Your task to perform on an android device: Open ESPN.com Image 0: 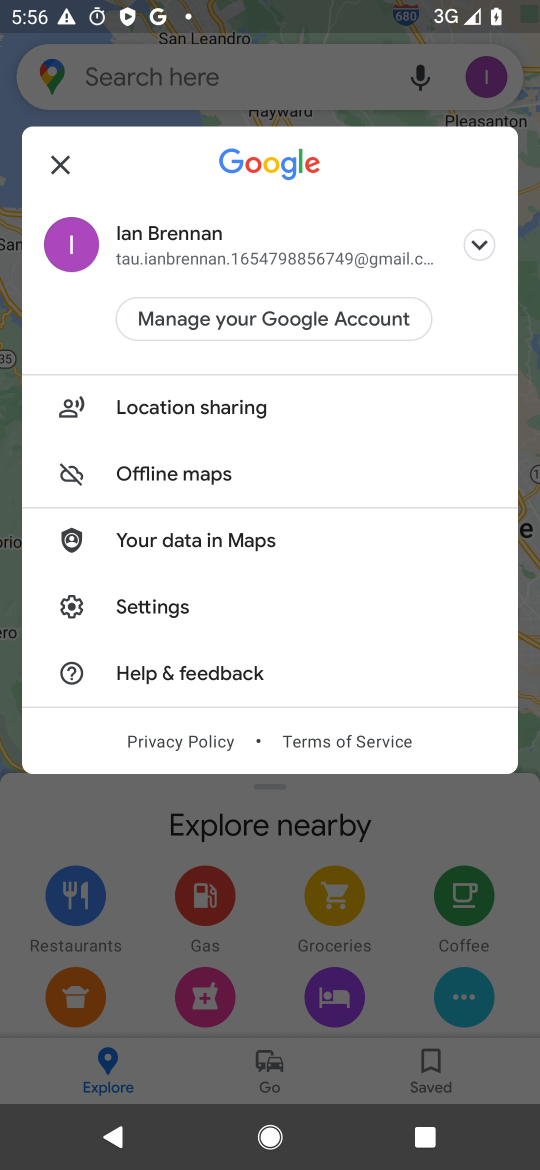
Step 0: press home button
Your task to perform on an android device: Open ESPN.com Image 1: 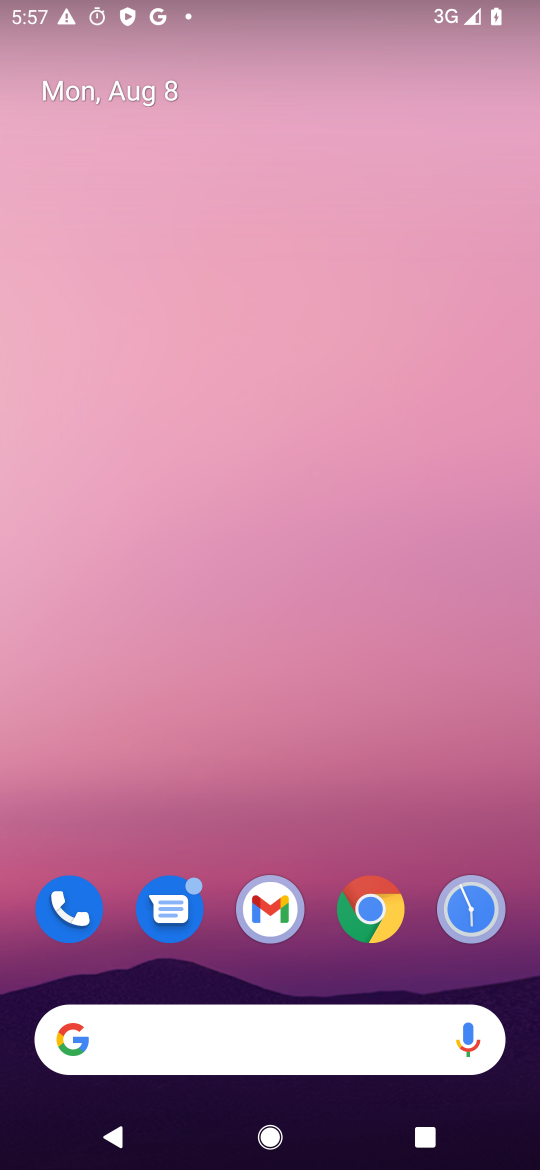
Step 1: click (381, 909)
Your task to perform on an android device: Open ESPN.com Image 2: 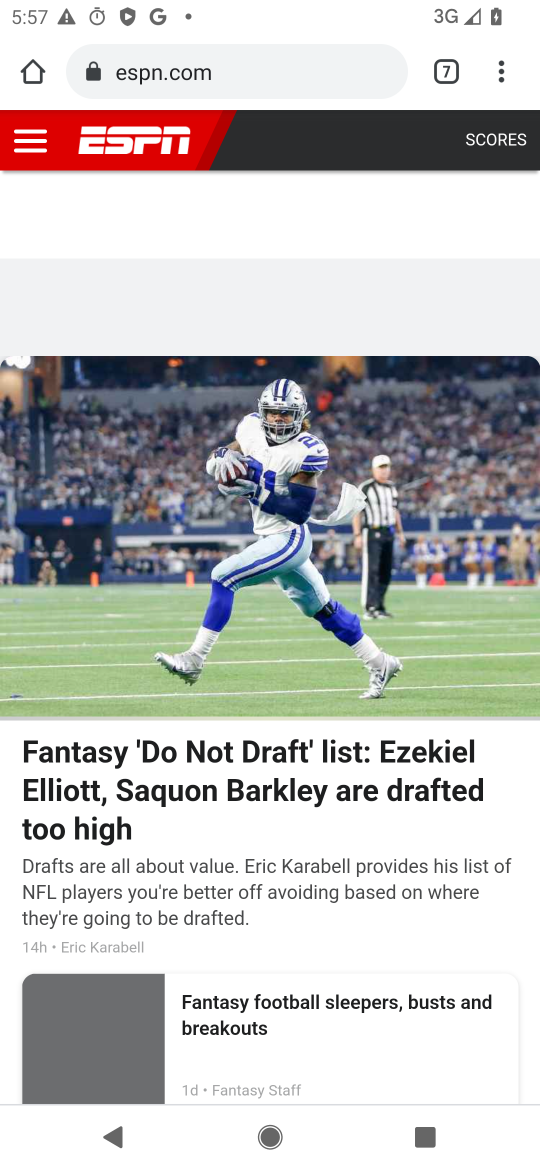
Step 2: task complete